Your task to perform on an android device: Turn off the flashlight Image 0: 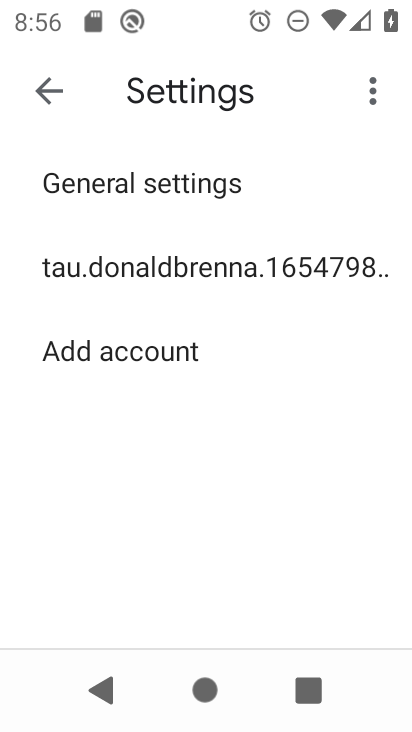
Step 0: press home button
Your task to perform on an android device: Turn off the flashlight Image 1: 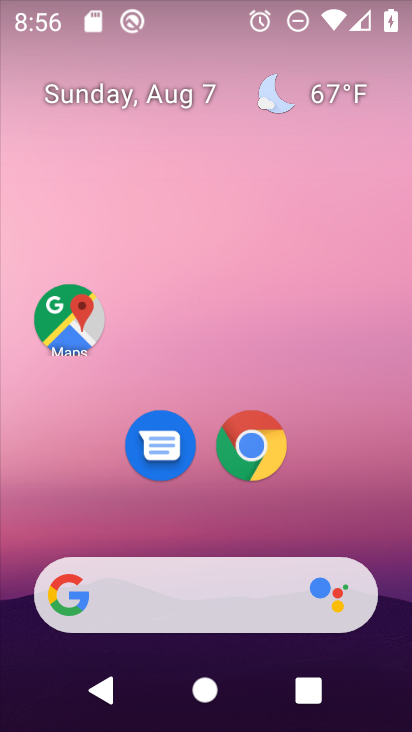
Step 1: drag from (217, 526) to (240, 66)
Your task to perform on an android device: Turn off the flashlight Image 2: 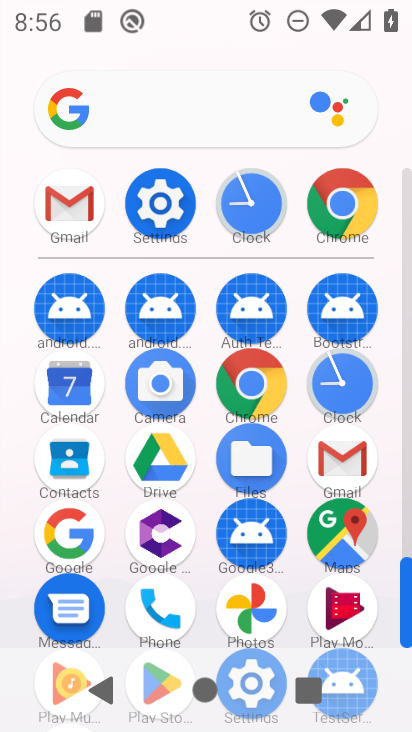
Step 2: click (158, 200)
Your task to perform on an android device: Turn off the flashlight Image 3: 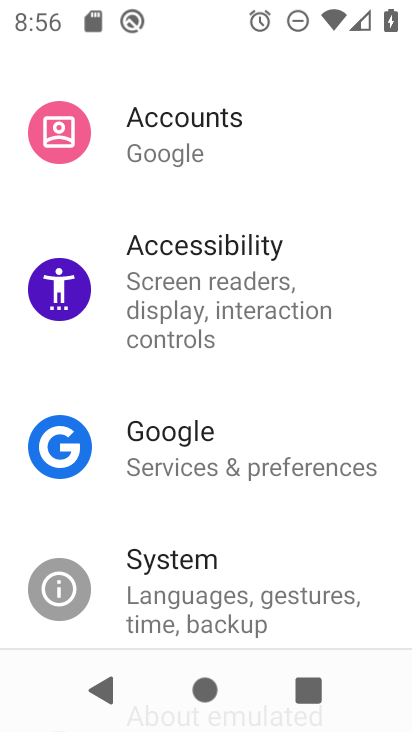
Step 3: drag from (153, 146) to (209, 677)
Your task to perform on an android device: Turn off the flashlight Image 4: 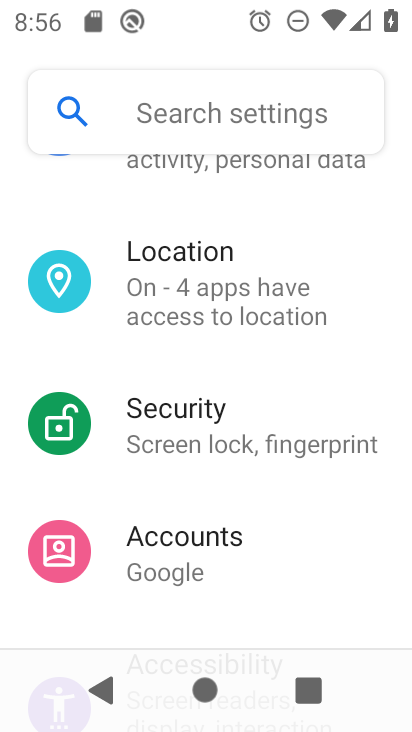
Step 4: click (109, 103)
Your task to perform on an android device: Turn off the flashlight Image 5: 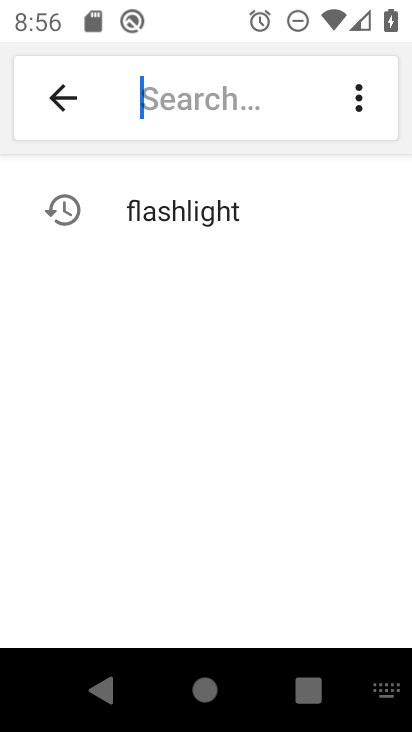
Step 5: click (168, 211)
Your task to perform on an android device: Turn off the flashlight Image 6: 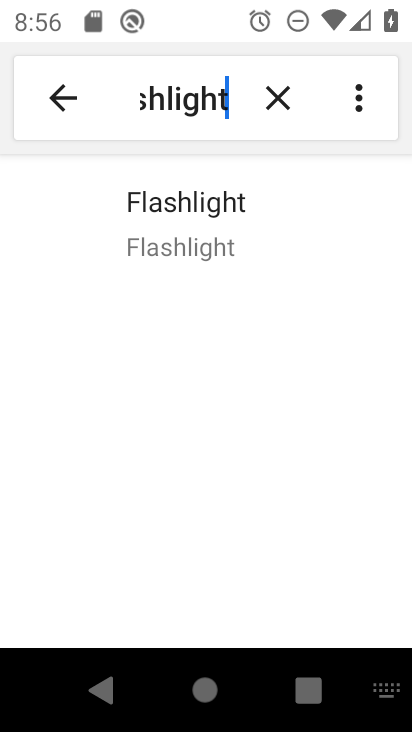
Step 6: task complete